Your task to perform on an android device: Go to eBay Image 0: 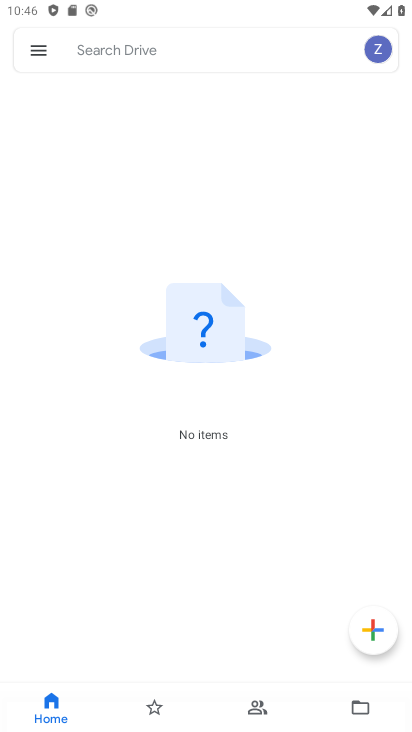
Step 0: press home button
Your task to perform on an android device: Go to eBay Image 1: 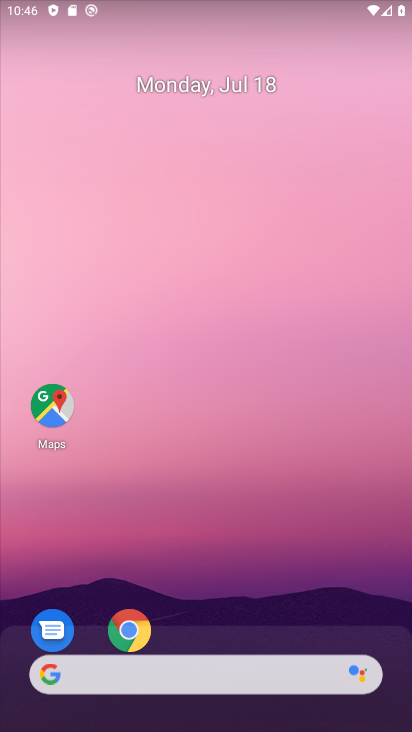
Step 1: drag from (210, 657) to (180, 300)
Your task to perform on an android device: Go to eBay Image 2: 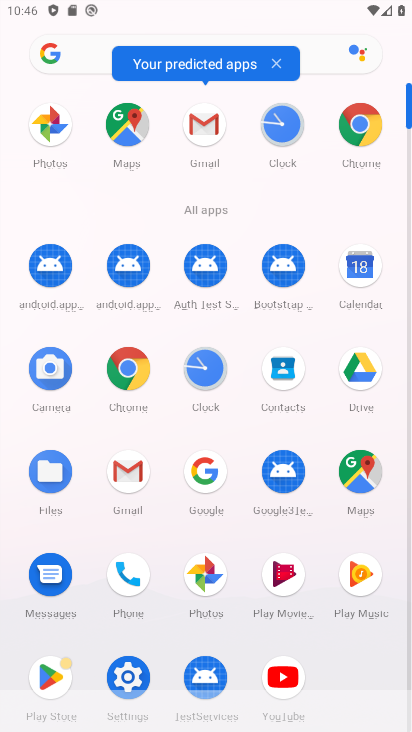
Step 2: click (366, 113)
Your task to perform on an android device: Go to eBay Image 3: 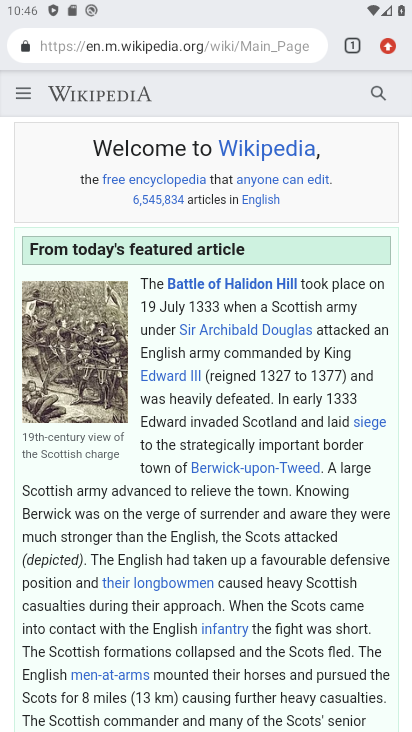
Step 3: click (350, 42)
Your task to perform on an android device: Go to eBay Image 4: 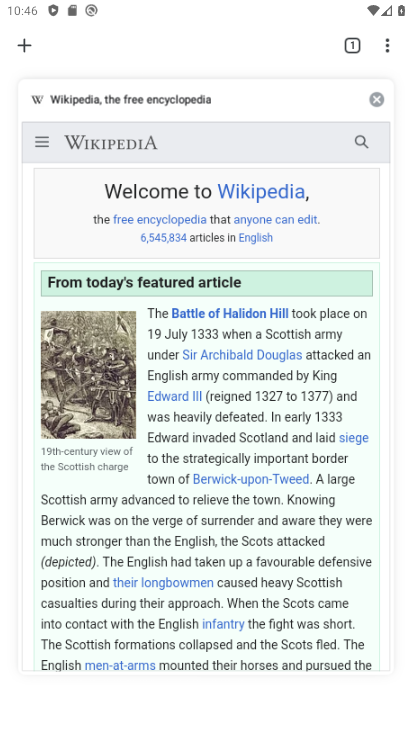
Step 4: click (374, 98)
Your task to perform on an android device: Go to eBay Image 5: 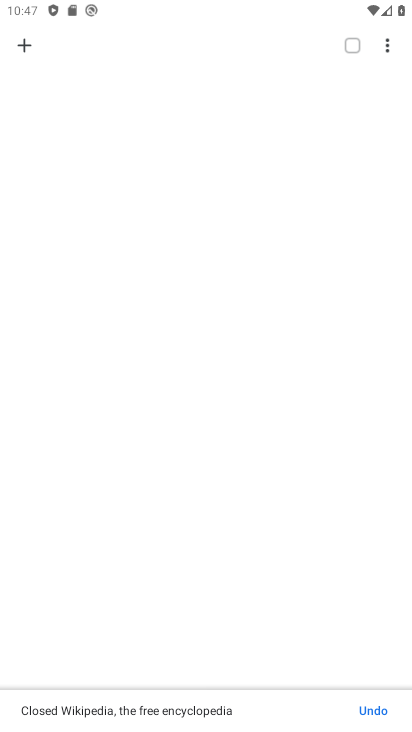
Step 5: click (29, 38)
Your task to perform on an android device: Go to eBay Image 6: 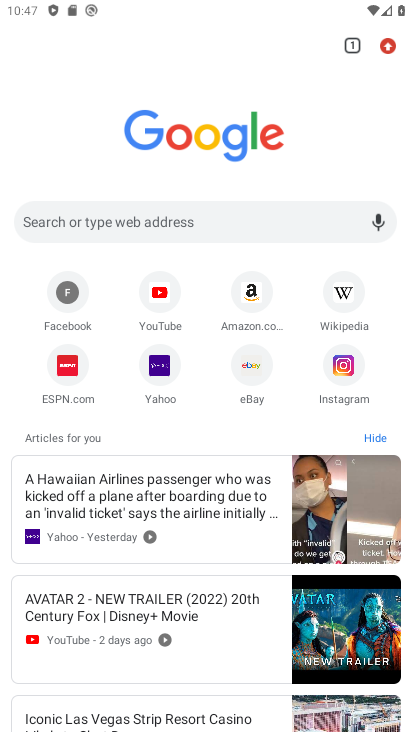
Step 6: click (250, 369)
Your task to perform on an android device: Go to eBay Image 7: 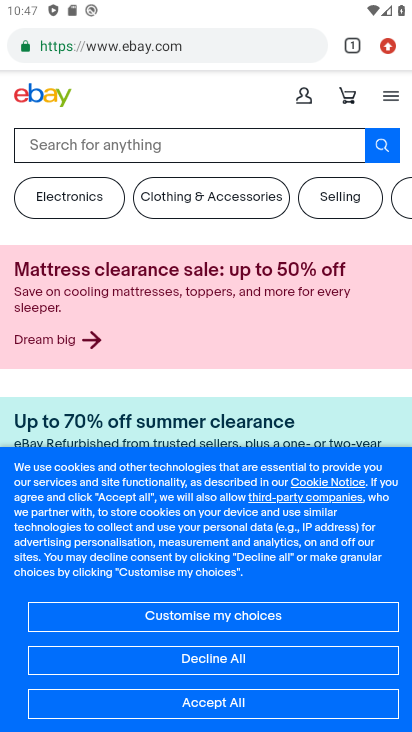
Step 7: task complete